Your task to perform on an android device: Show me the alarms in the clock app Image 0: 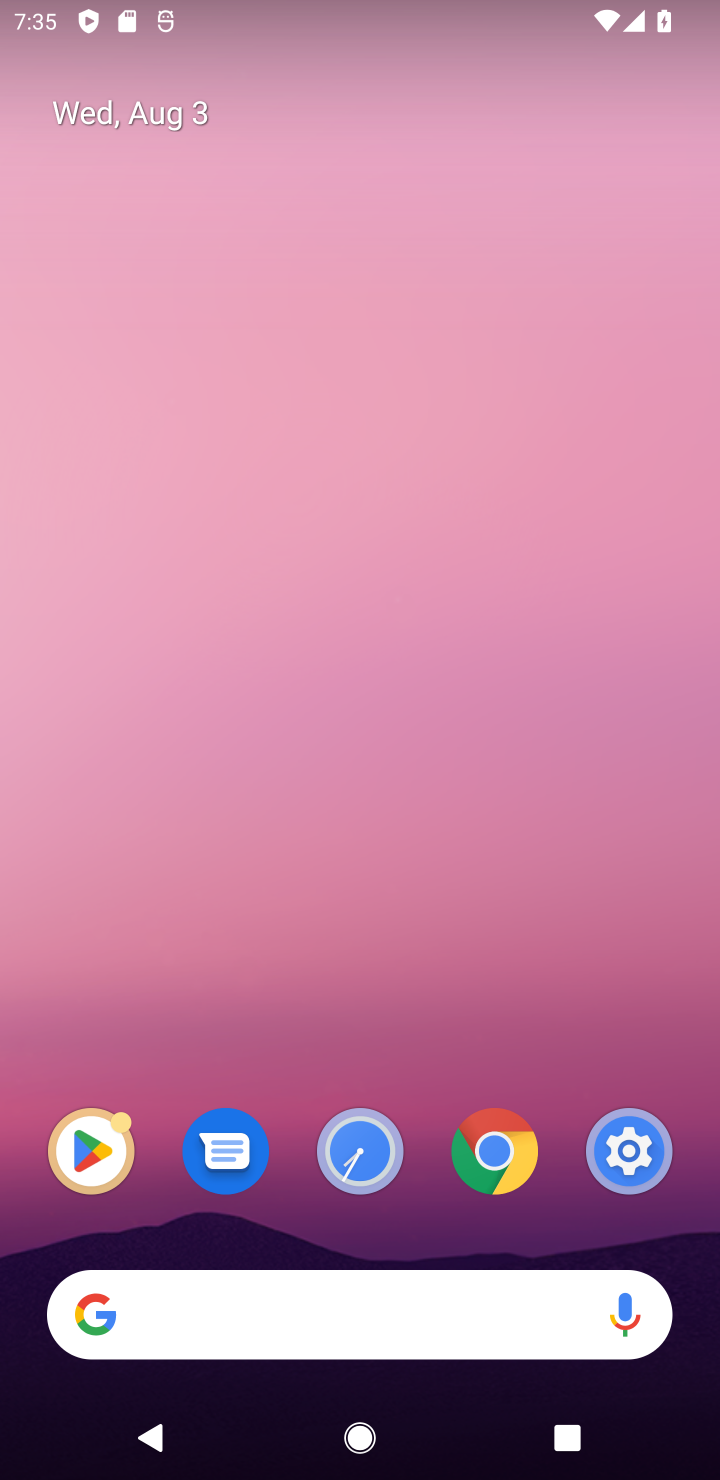
Step 0: click (358, 1157)
Your task to perform on an android device: Show me the alarms in the clock app Image 1: 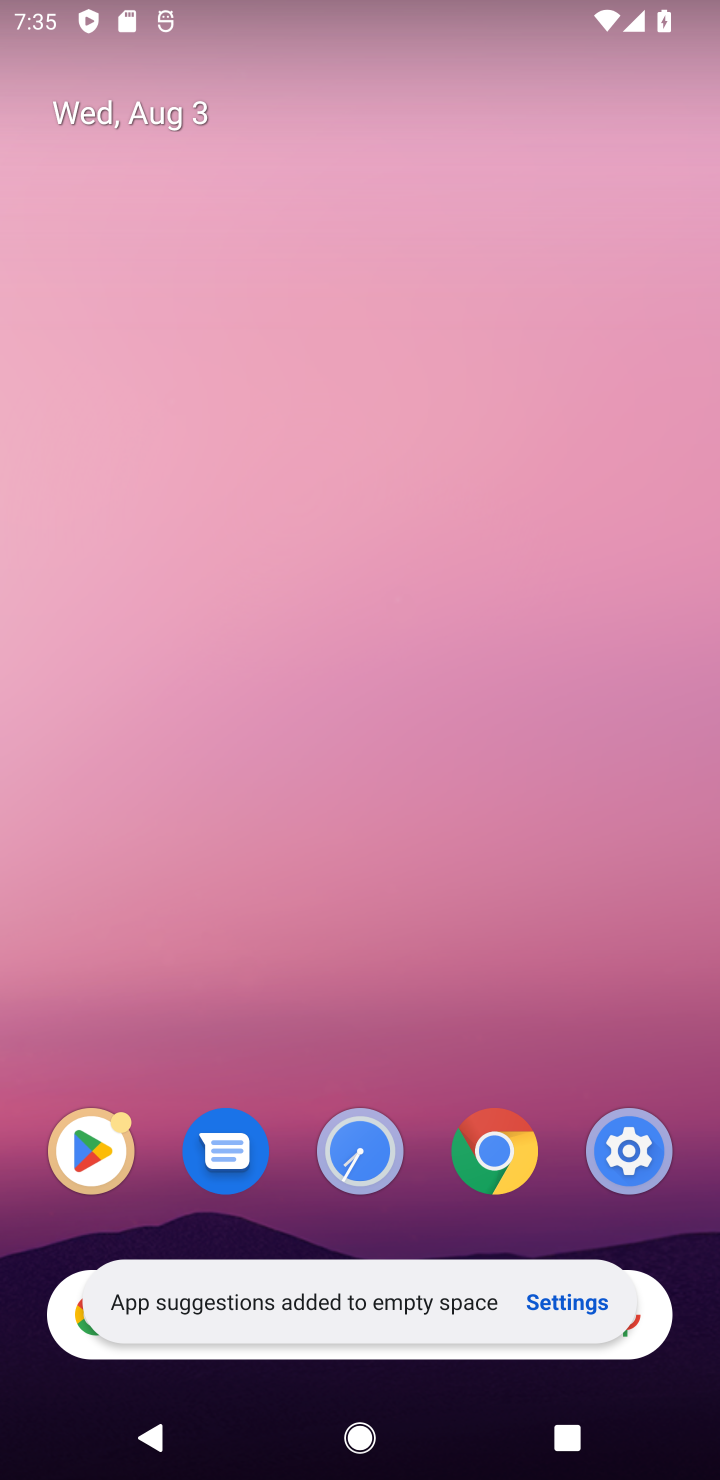
Step 1: click (372, 1142)
Your task to perform on an android device: Show me the alarms in the clock app Image 2: 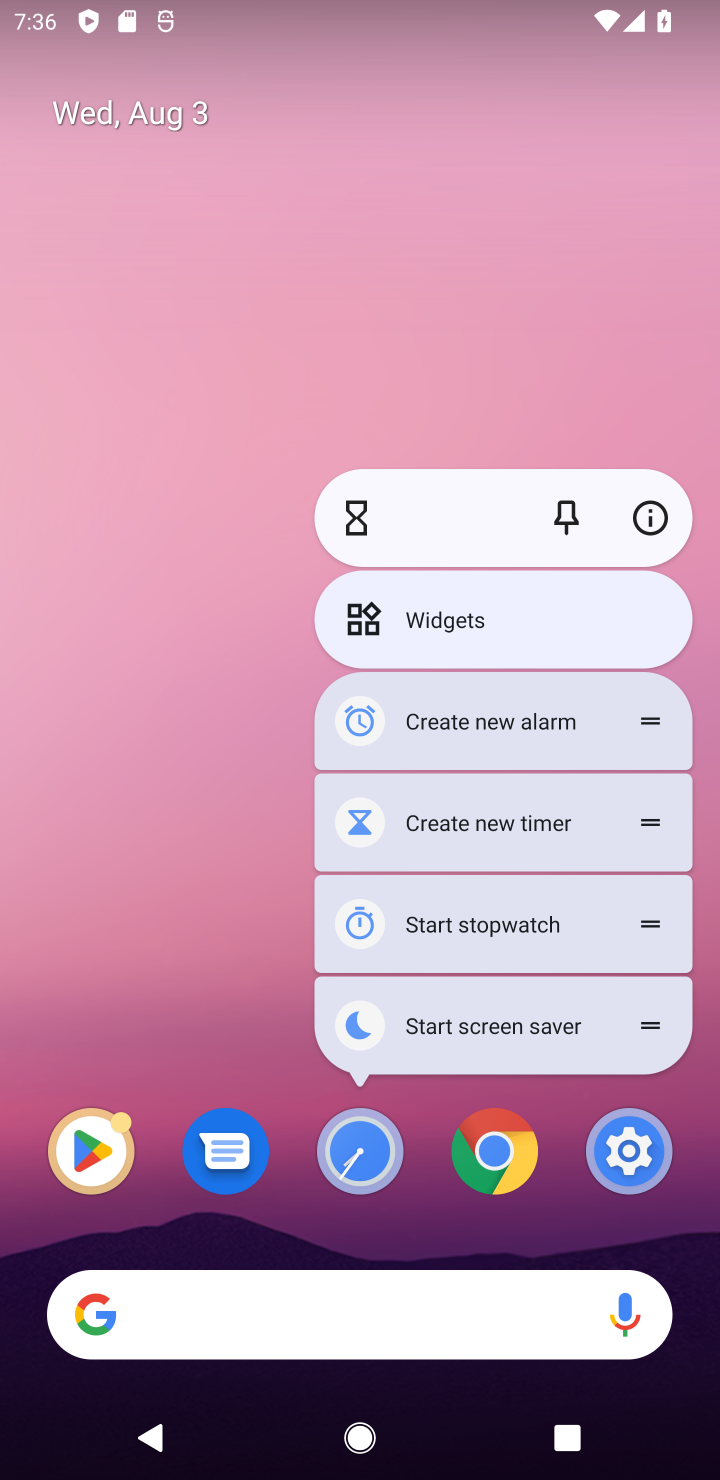
Step 2: click (360, 1155)
Your task to perform on an android device: Show me the alarms in the clock app Image 3: 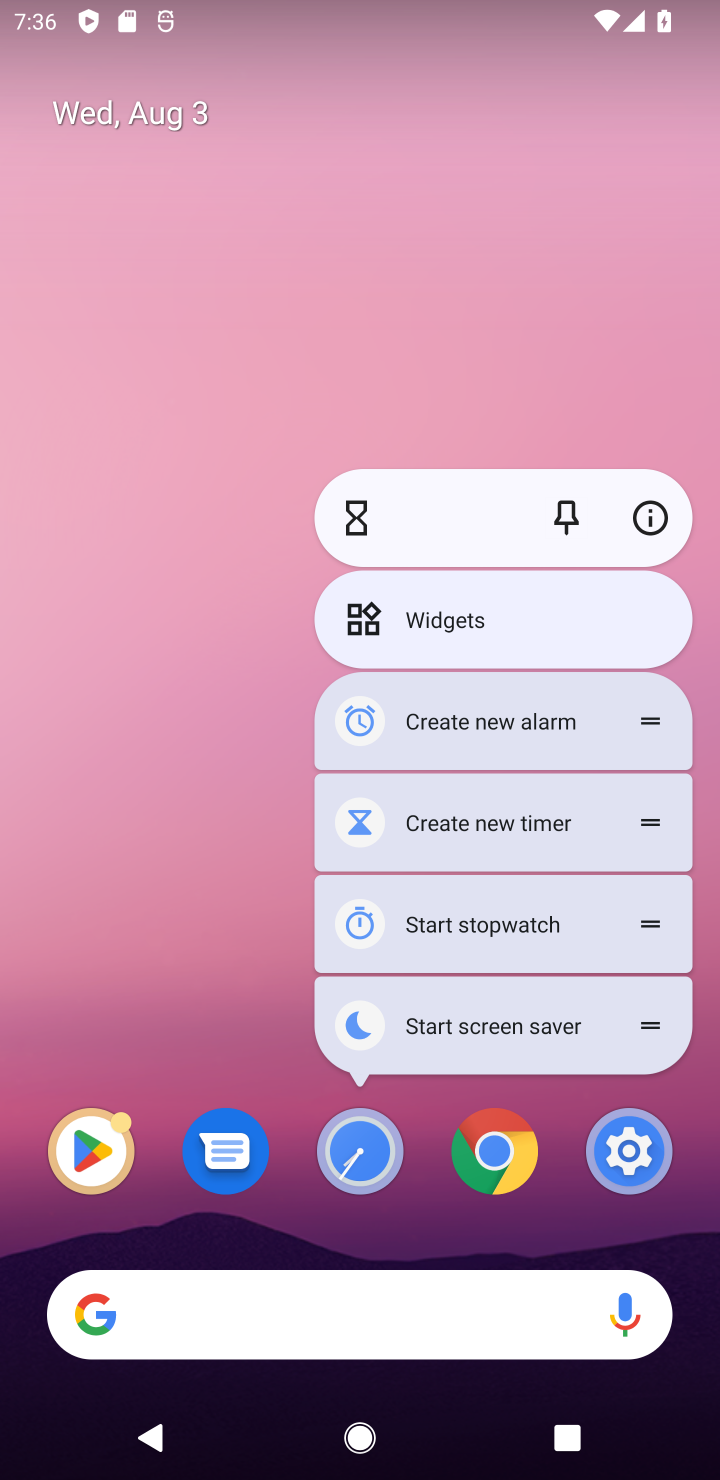
Step 3: click (360, 1155)
Your task to perform on an android device: Show me the alarms in the clock app Image 4: 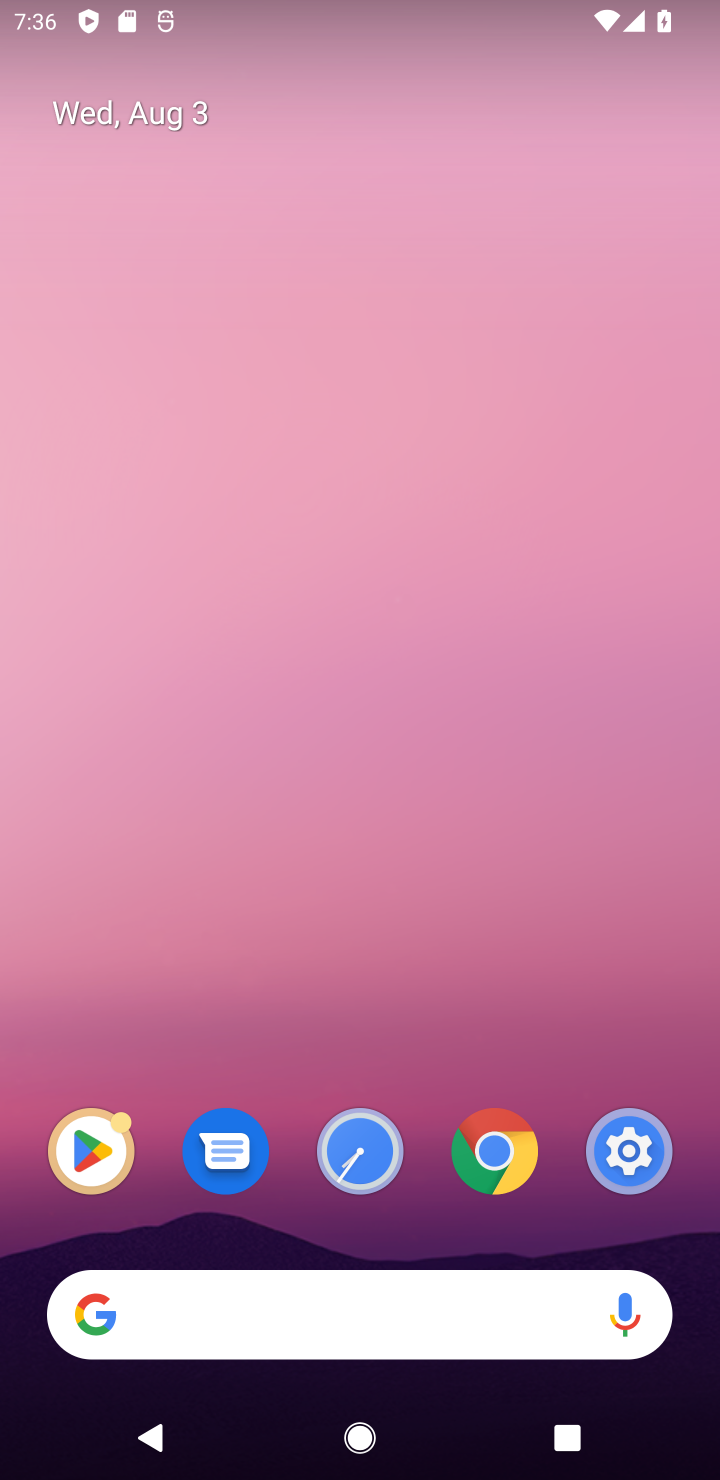
Step 4: click (360, 1155)
Your task to perform on an android device: Show me the alarms in the clock app Image 5: 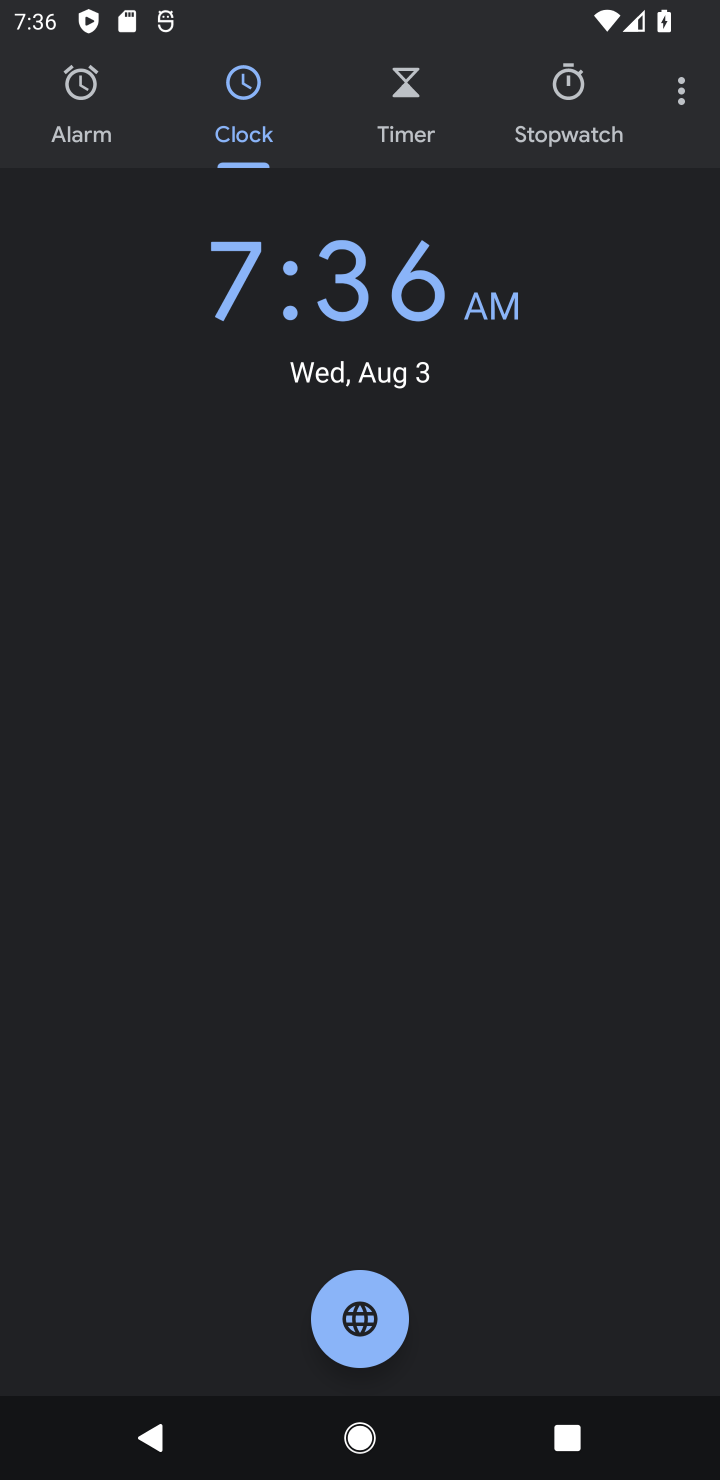
Step 5: click (85, 101)
Your task to perform on an android device: Show me the alarms in the clock app Image 6: 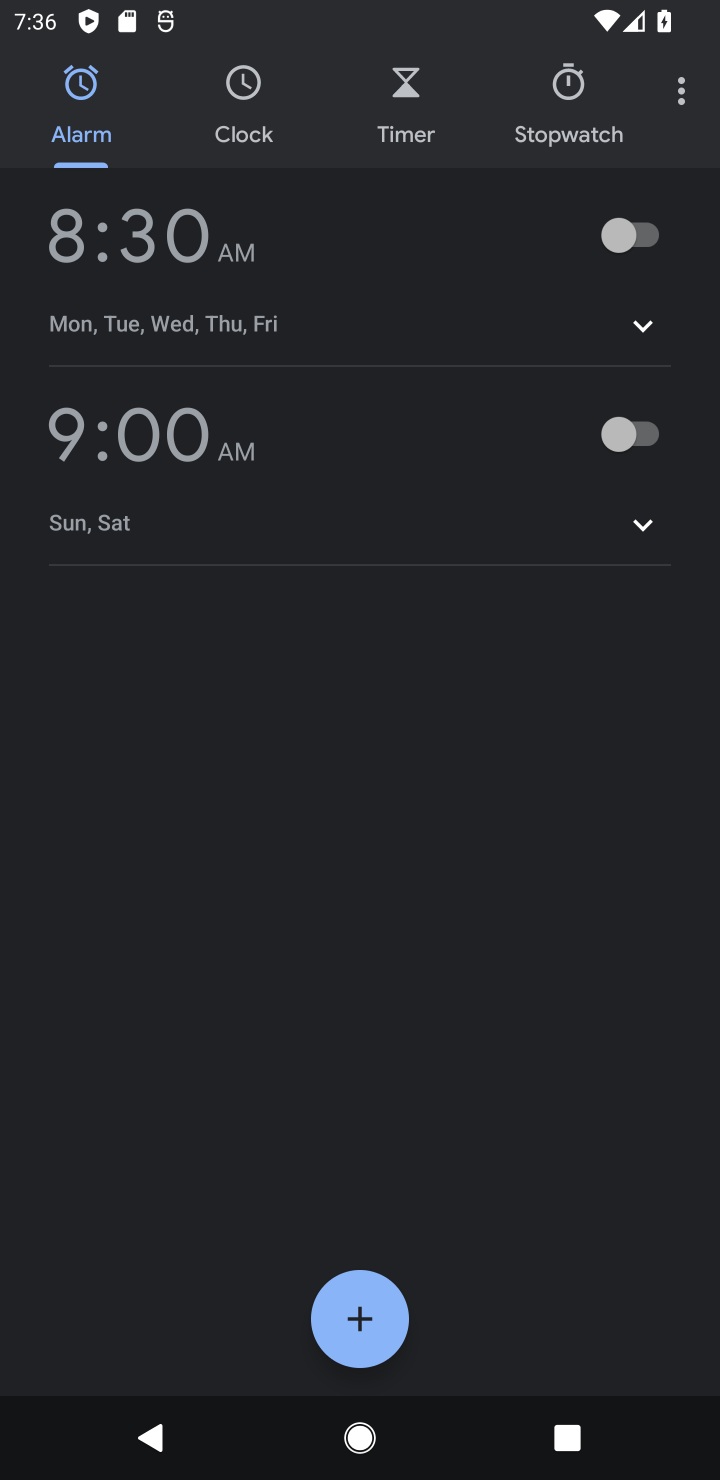
Step 6: click (633, 250)
Your task to perform on an android device: Show me the alarms in the clock app Image 7: 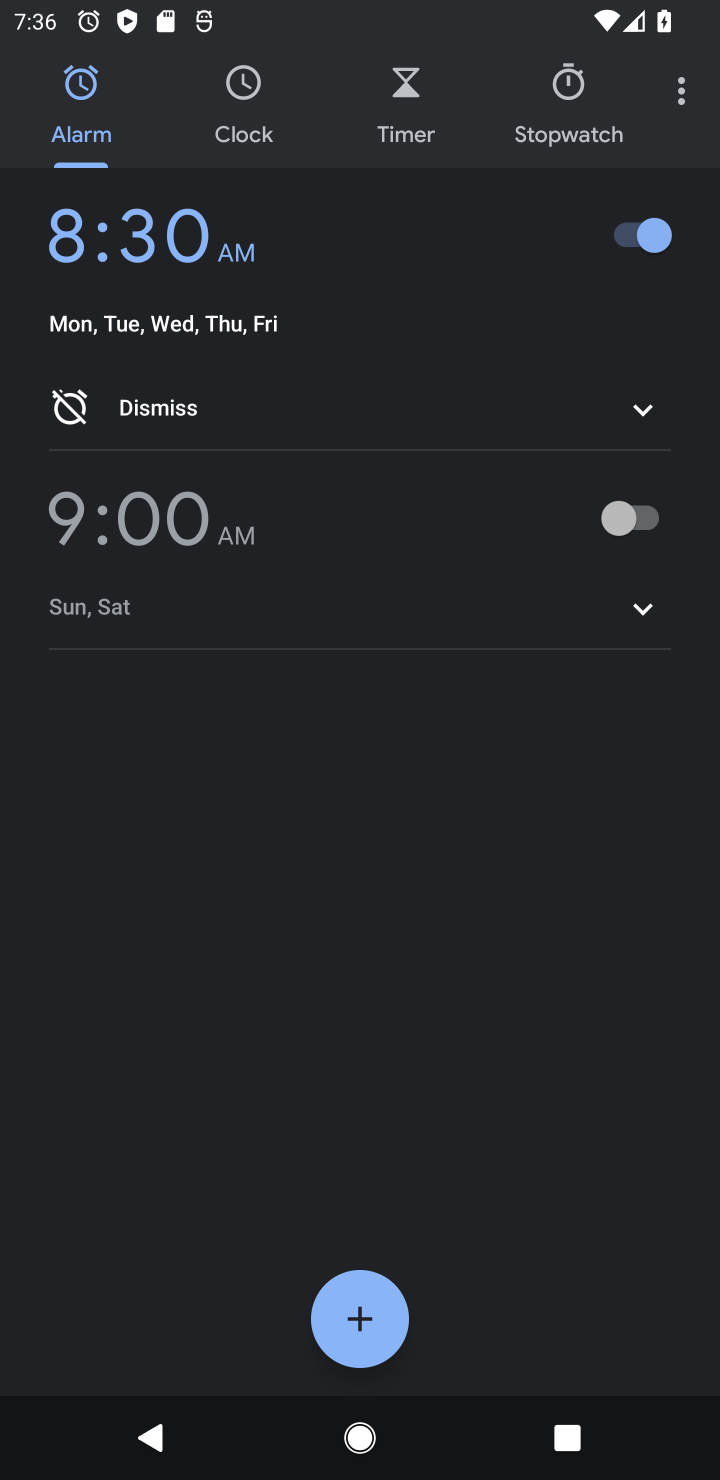
Step 7: task complete